Your task to perform on an android device: turn on showing notifications on the lock screen Image 0: 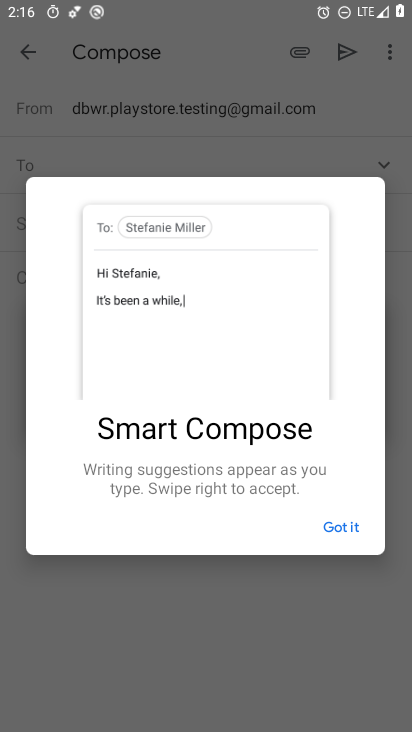
Step 0: press home button
Your task to perform on an android device: turn on showing notifications on the lock screen Image 1: 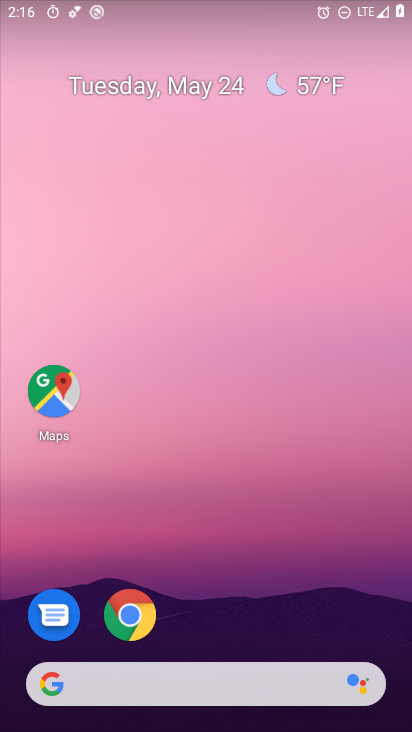
Step 1: drag from (216, 662) to (326, 231)
Your task to perform on an android device: turn on showing notifications on the lock screen Image 2: 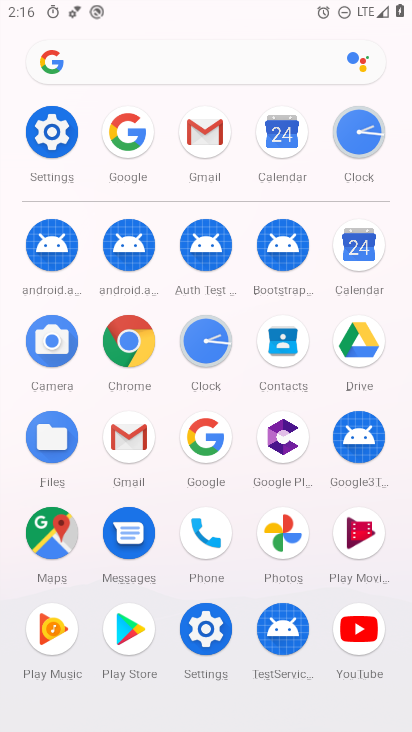
Step 2: click (55, 130)
Your task to perform on an android device: turn on showing notifications on the lock screen Image 3: 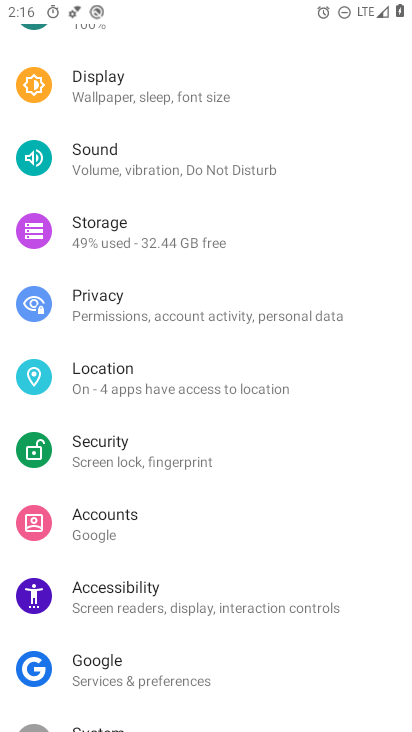
Step 3: click (102, 310)
Your task to perform on an android device: turn on showing notifications on the lock screen Image 4: 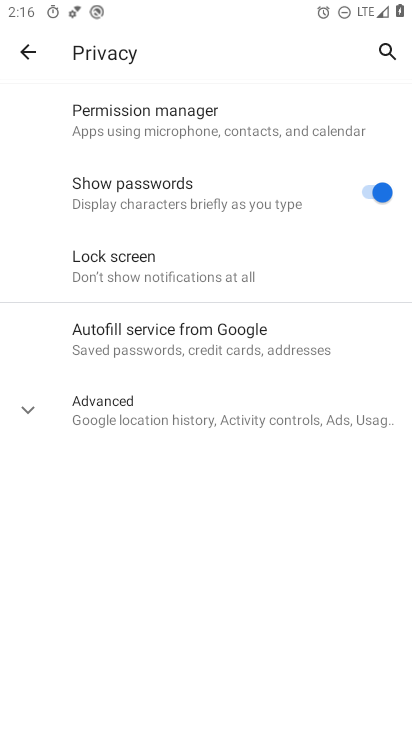
Step 4: click (113, 269)
Your task to perform on an android device: turn on showing notifications on the lock screen Image 5: 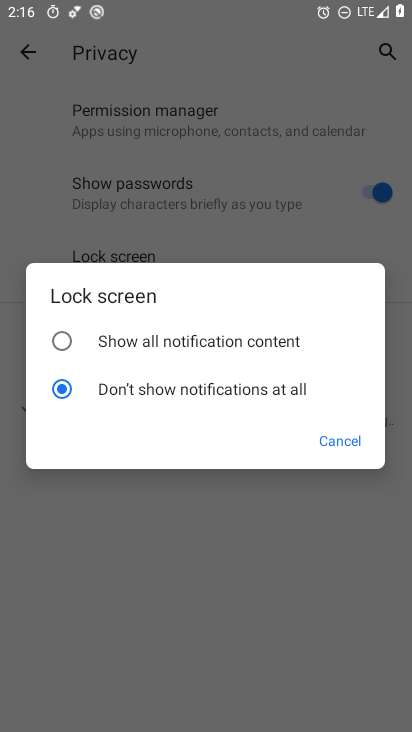
Step 5: click (156, 348)
Your task to perform on an android device: turn on showing notifications on the lock screen Image 6: 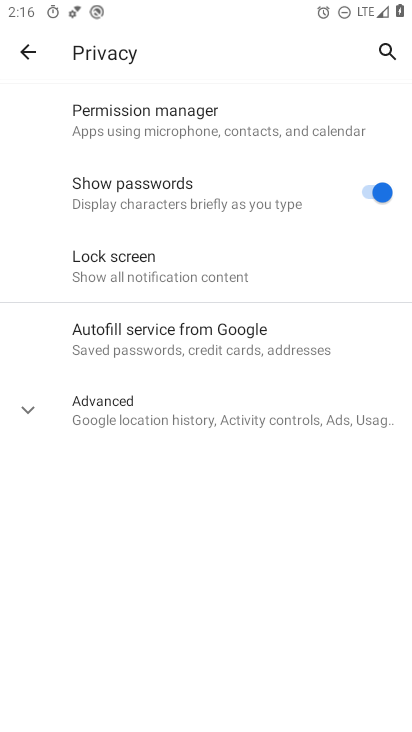
Step 6: task complete